Your task to perform on an android device: star an email in the gmail app Image 0: 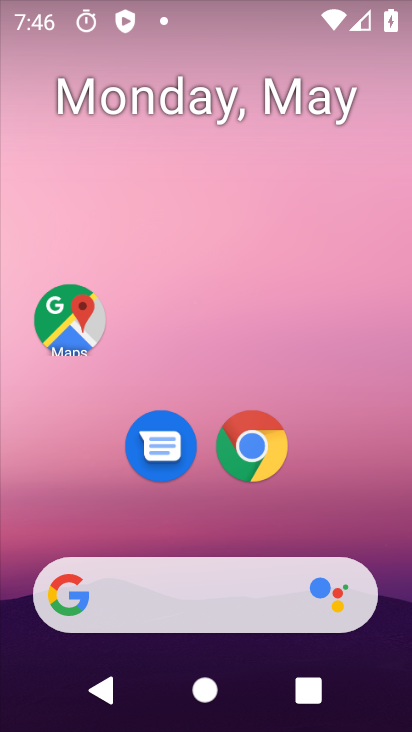
Step 0: drag from (325, 542) to (340, 21)
Your task to perform on an android device: star an email in the gmail app Image 1: 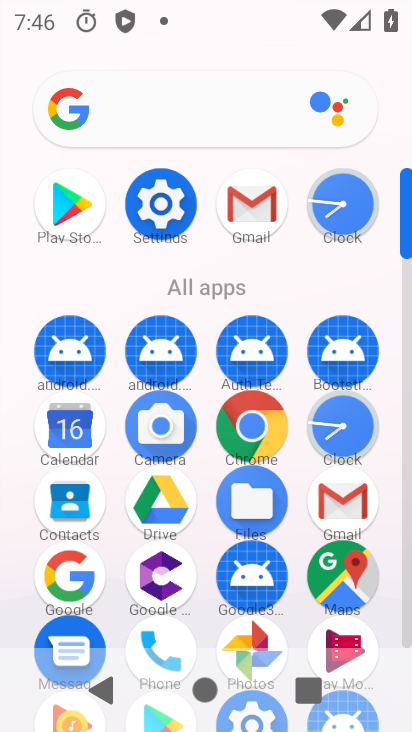
Step 1: click (243, 212)
Your task to perform on an android device: star an email in the gmail app Image 2: 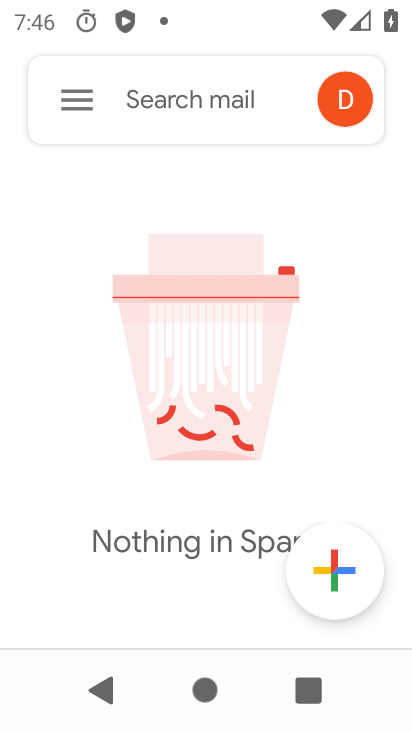
Step 2: click (72, 102)
Your task to perform on an android device: star an email in the gmail app Image 3: 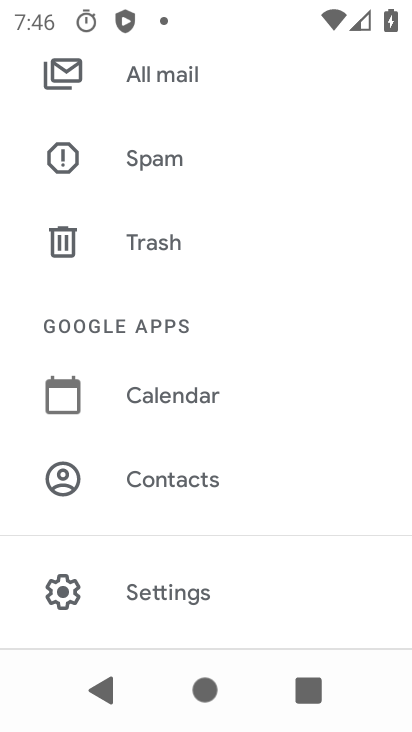
Step 3: click (170, 82)
Your task to perform on an android device: star an email in the gmail app Image 4: 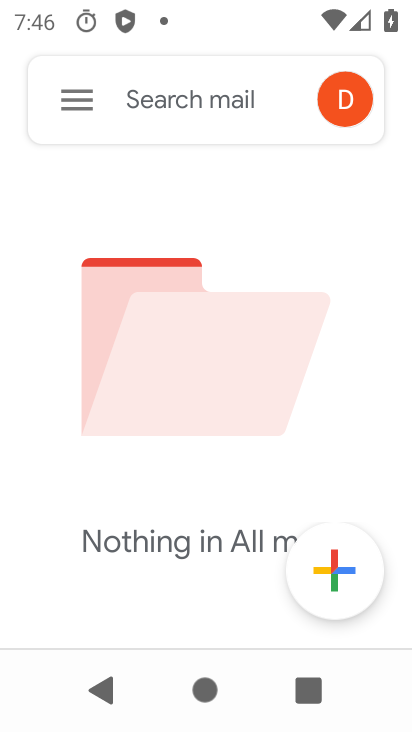
Step 4: task complete